Your task to perform on an android device: Go to Yahoo.com Image 0: 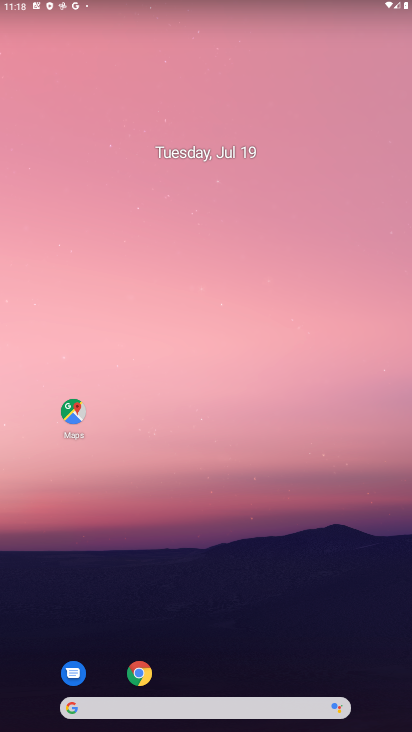
Step 0: click (212, 688)
Your task to perform on an android device: Go to Yahoo.com Image 1: 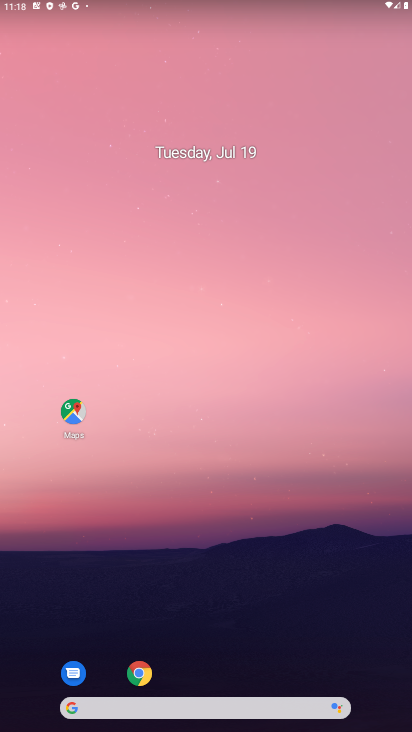
Step 1: drag from (212, 688) to (118, 52)
Your task to perform on an android device: Go to Yahoo.com Image 2: 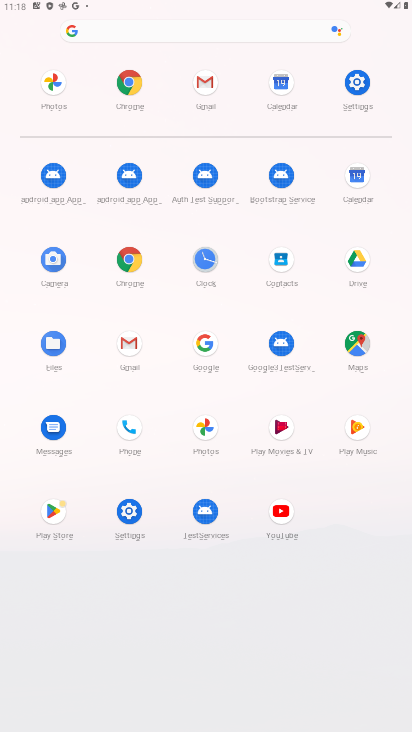
Step 2: click (258, 37)
Your task to perform on an android device: Go to Yahoo.com Image 3: 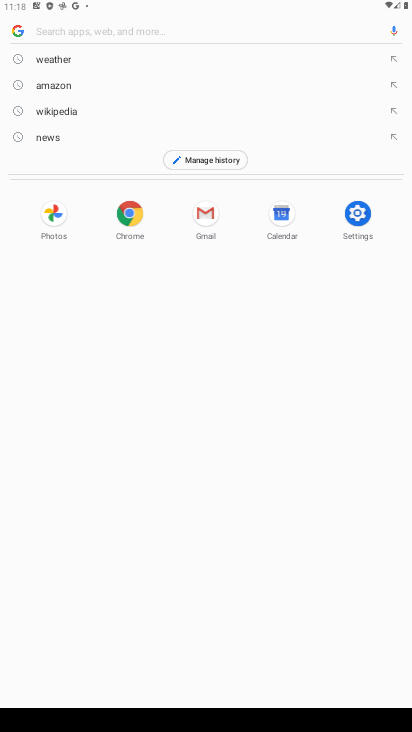
Step 3: type "yahoo.com"
Your task to perform on an android device: Go to Yahoo.com Image 4: 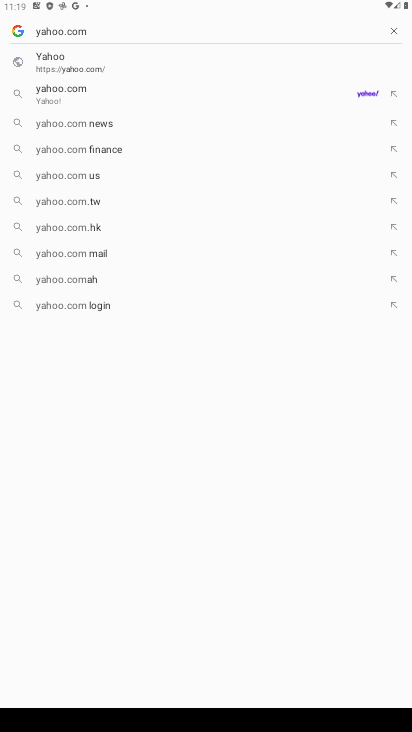
Step 4: click (85, 63)
Your task to perform on an android device: Go to Yahoo.com Image 5: 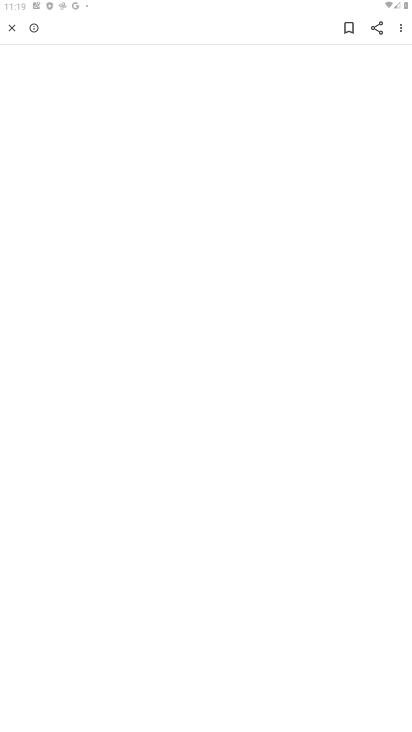
Step 5: task complete